Your task to perform on an android device: turn pop-ups on in chrome Image 0: 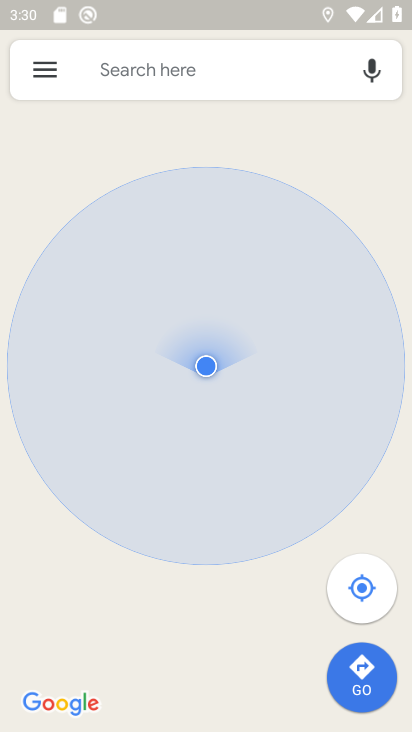
Step 0: press home button
Your task to perform on an android device: turn pop-ups on in chrome Image 1: 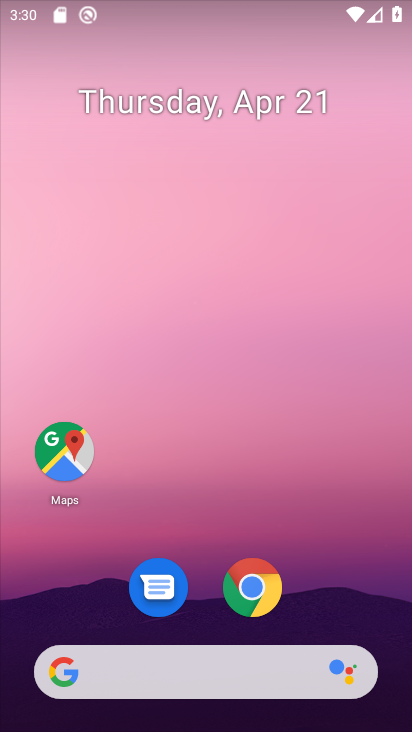
Step 1: click (247, 591)
Your task to perform on an android device: turn pop-ups on in chrome Image 2: 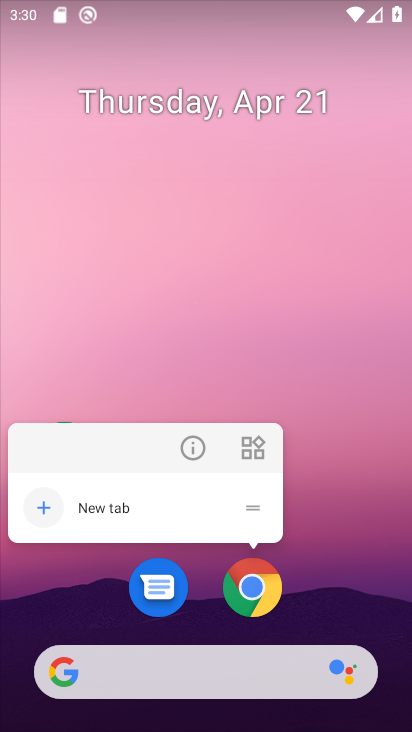
Step 2: click (247, 590)
Your task to perform on an android device: turn pop-ups on in chrome Image 3: 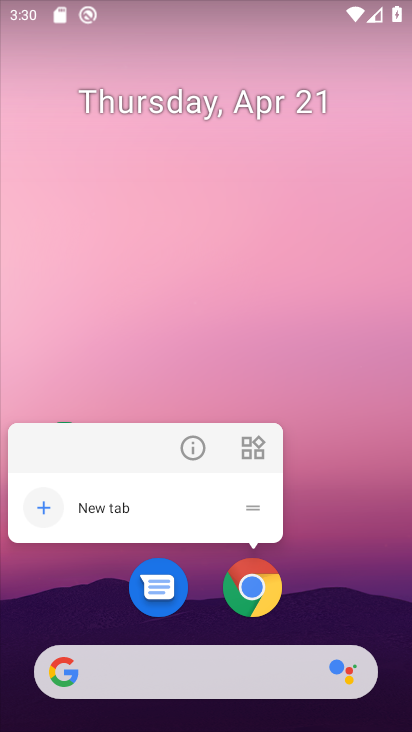
Step 3: click (252, 599)
Your task to perform on an android device: turn pop-ups on in chrome Image 4: 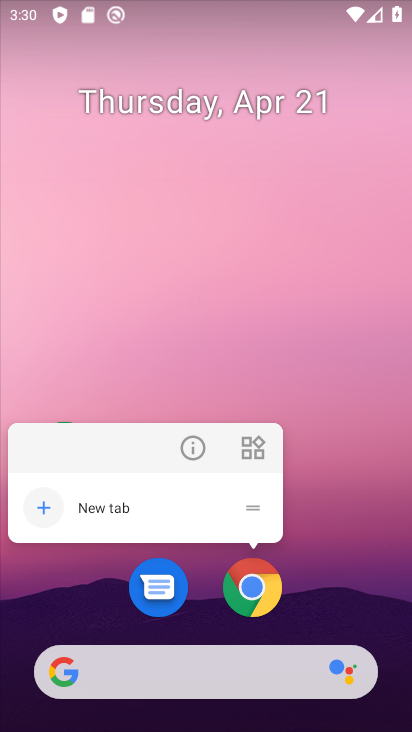
Step 4: click (250, 589)
Your task to perform on an android device: turn pop-ups on in chrome Image 5: 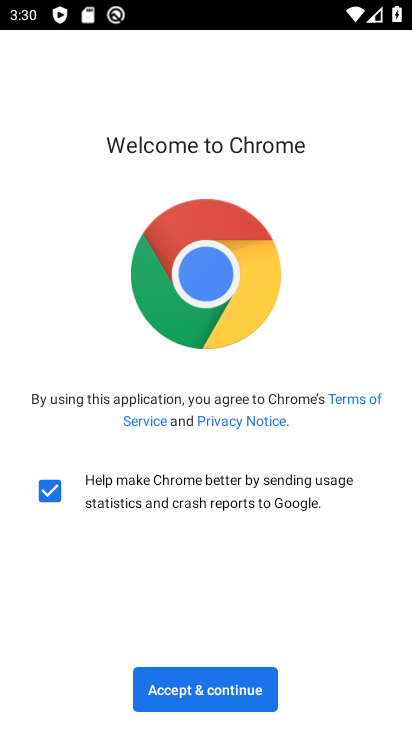
Step 5: click (203, 693)
Your task to perform on an android device: turn pop-ups on in chrome Image 6: 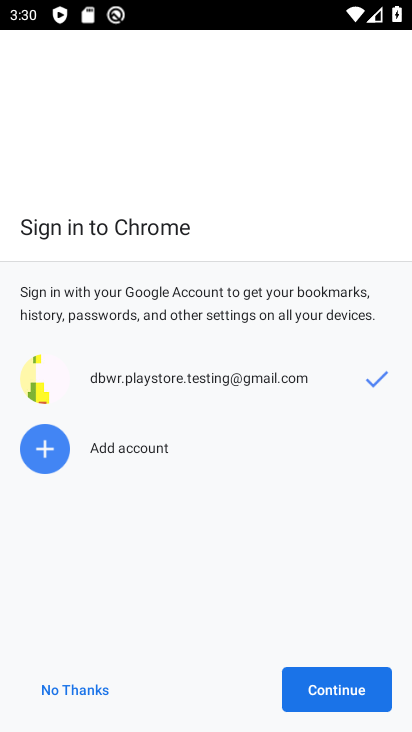
Step 6: click (69, 694)
Your task to perform on an android device: turn pop-ups on in chrome Image 7: 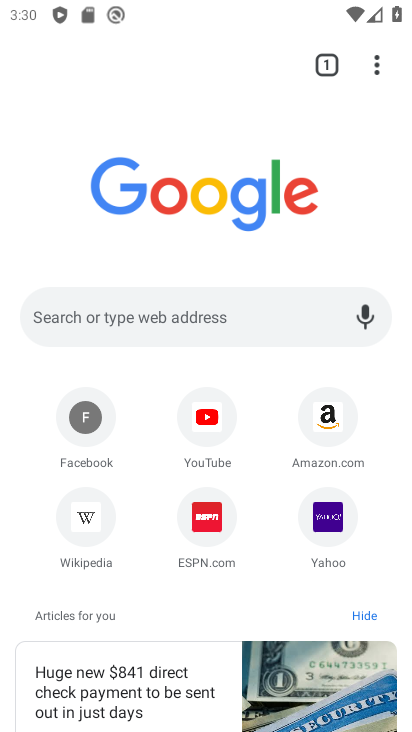
Step 7: click (376, 68)
Your task to perform on an android device: turn pop-ups on in chrome Image 8: 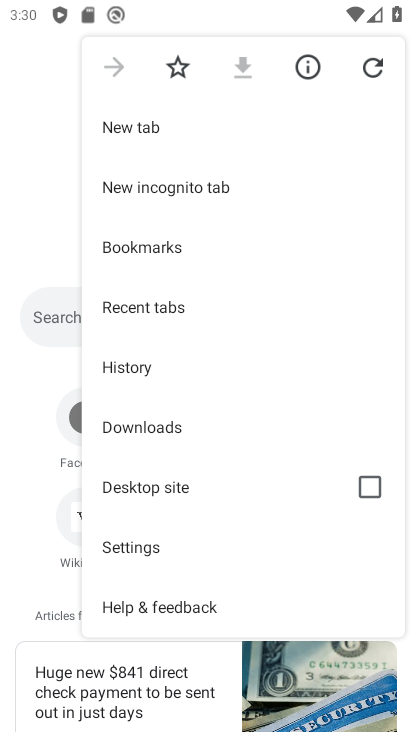
Step 8: click (134, 549)
Your task to perform on an android device: turn pop-ups on in chrome Image 9: 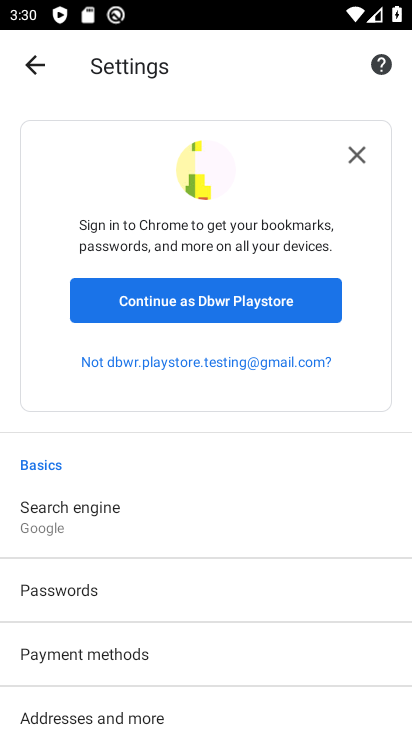
Step 9: drag from (238, 644) to (214, 150)
Your task to perform on an android device: turn pop-ups on in chrome Image 10: 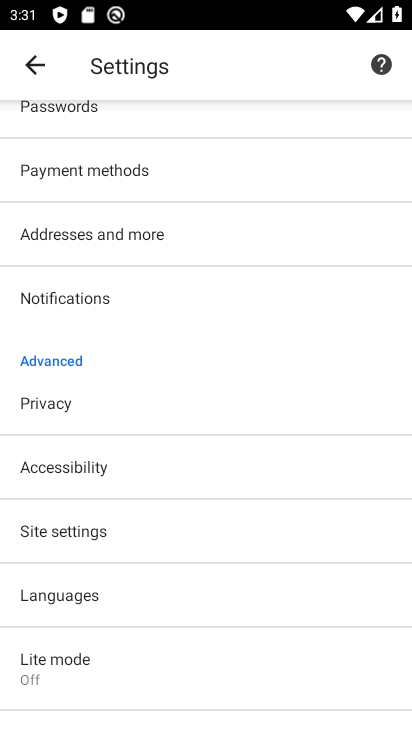
Step 10: click (48, 535)
Your task to perform on an android device: turn pop-ups on in chrome Image 11: 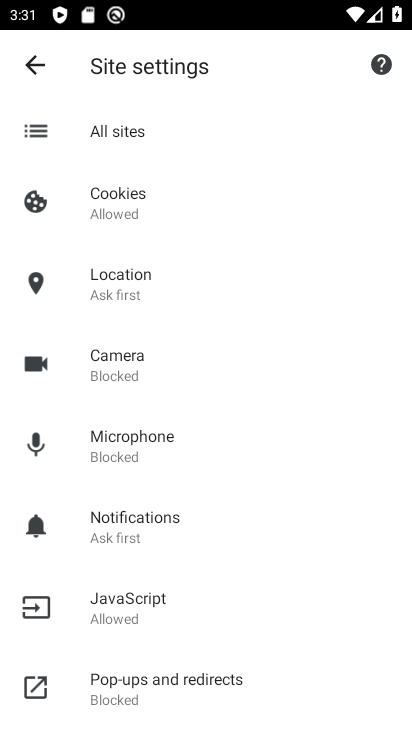
Step 11: click (118, 691)
Your task to perform on an android device: turn pop-ups on in chrome Image 12: 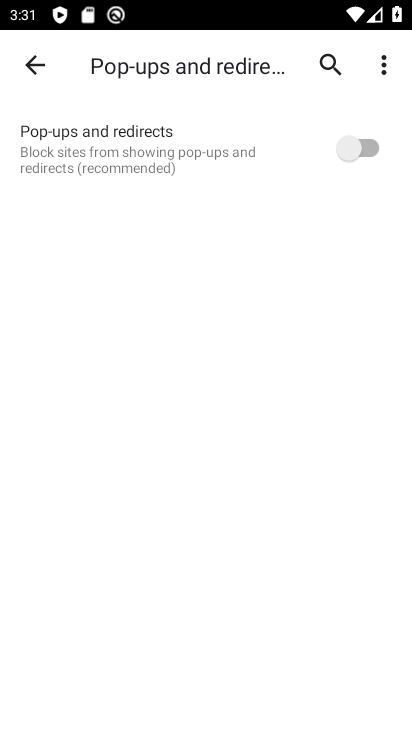
Step 12: click (350, 152)
Your task to perform on an android device: turn pop-ups on in chrome Image 13: 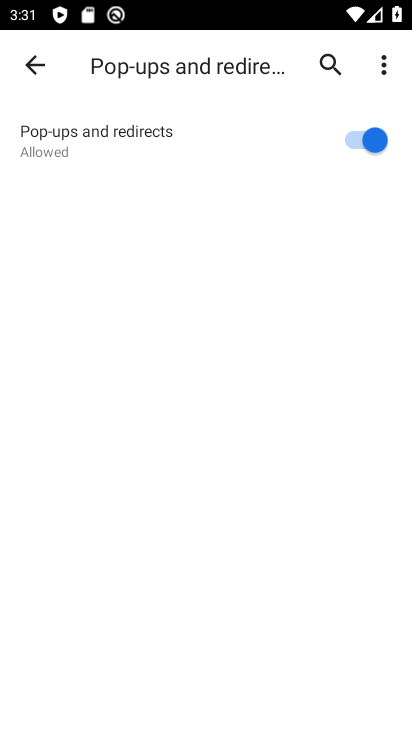
Step 13: task complete